Your task to perform on an android device: Open Google Chrome Image 0: 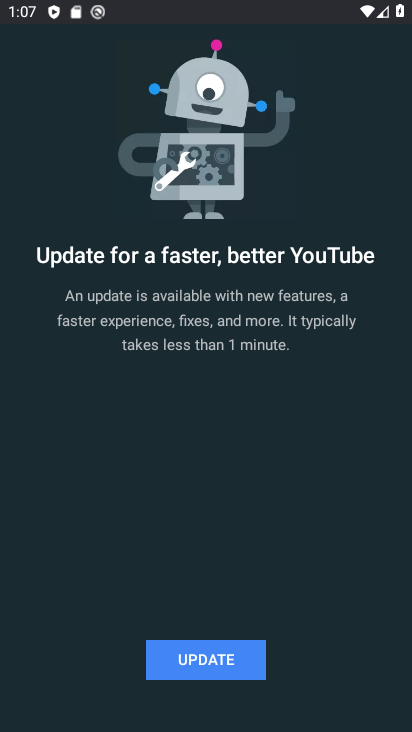
Step 0: press home button
Your task to perform on an android device: Open Google Chrome Image 1: 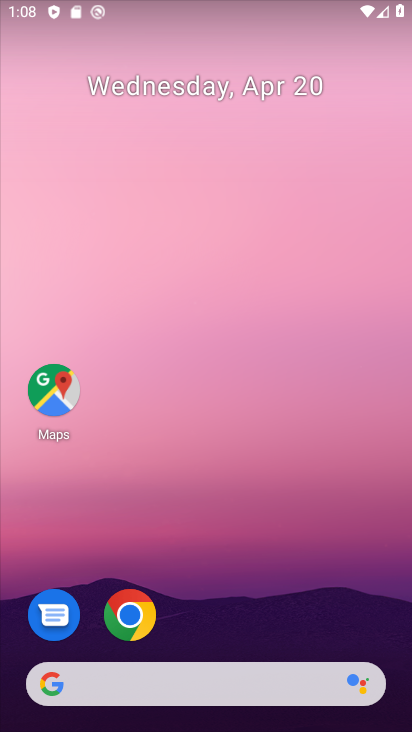
Step 1: click (115, 610)
Your task to perform on an android device: Open Google Chrome Image 2: 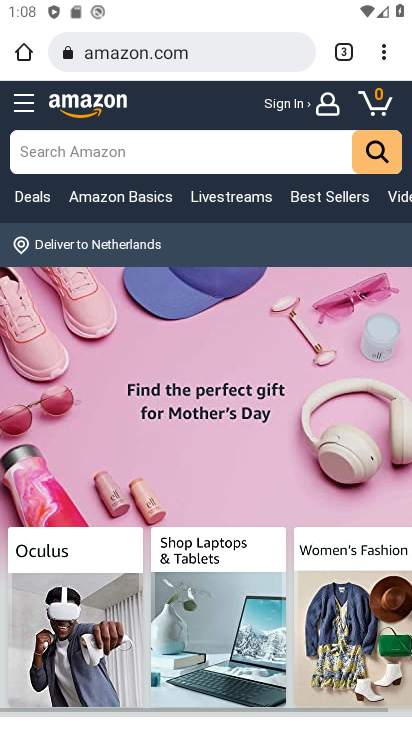
Step 2: press home button
Your task to perform on an android device: Open Google Chrome Image 3: 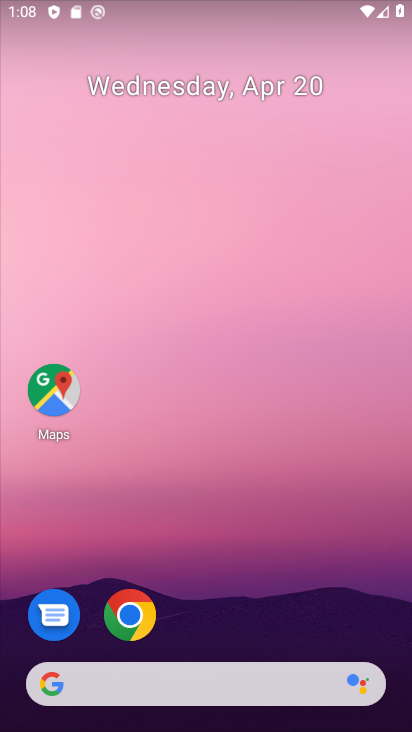
Step 3: click (139, 601)
Your task to perform on an android device: Open Google Chrome Image 4: 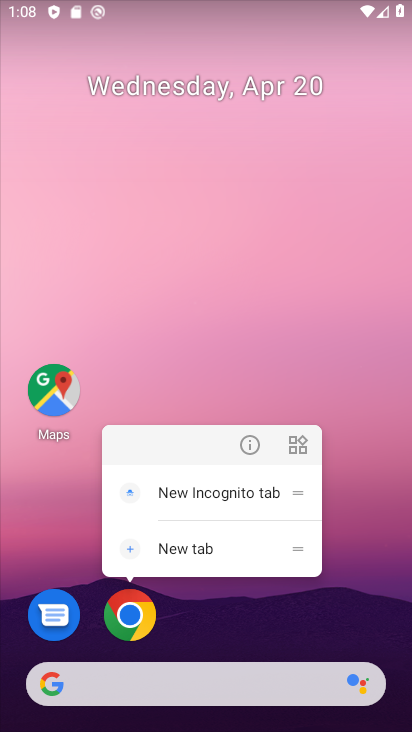
Step 4: click (139, 601)
Your task to perform on an android device: Open Google Chrome Image 5: 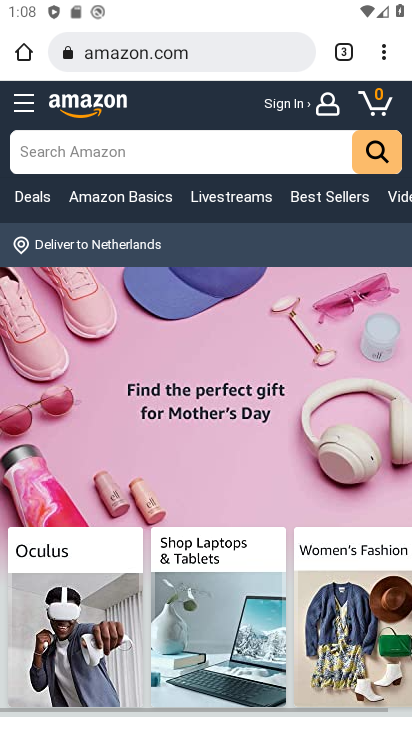
Step 5: task complete